Your task to perform on an android device: change notifications settings Image 0: 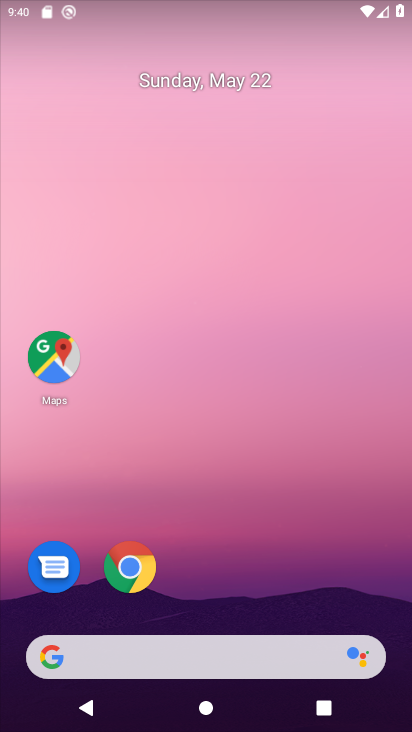
Step 0: drag from (214, 607) to (214, 78)
Your task to perform on an android device: change notifications settings Image 1: 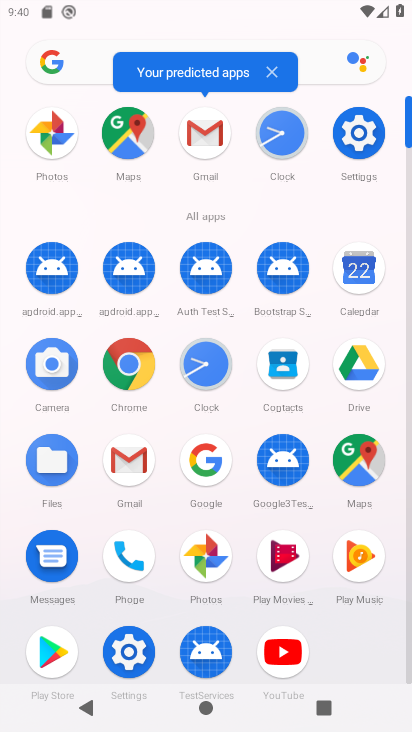
Step 1: click (358, 127)
Your task to perform on an android device: change notifications settings Image 2: 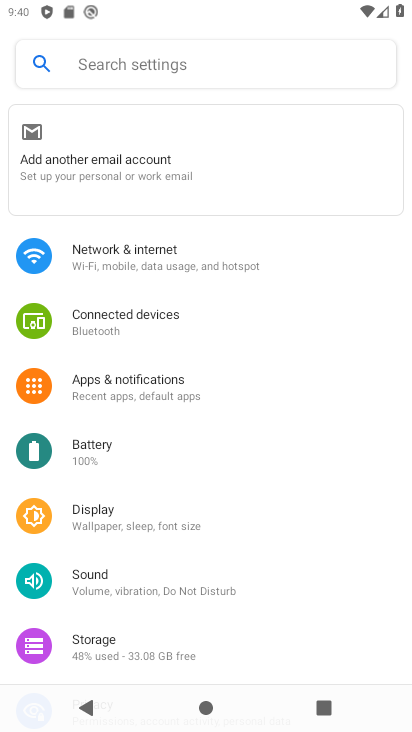
Step 2: click (205, 378)
Your task to perform on an android device: change notifications settings Image 3: 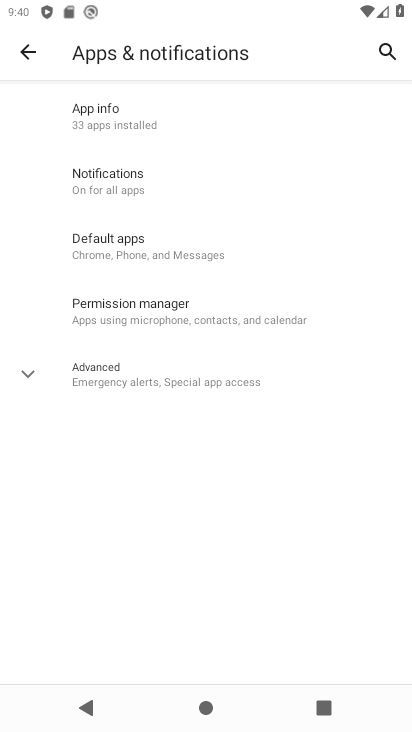
Step 3: click (153, 164)
Your task to perform on an android device: change notifications settings Image 4: 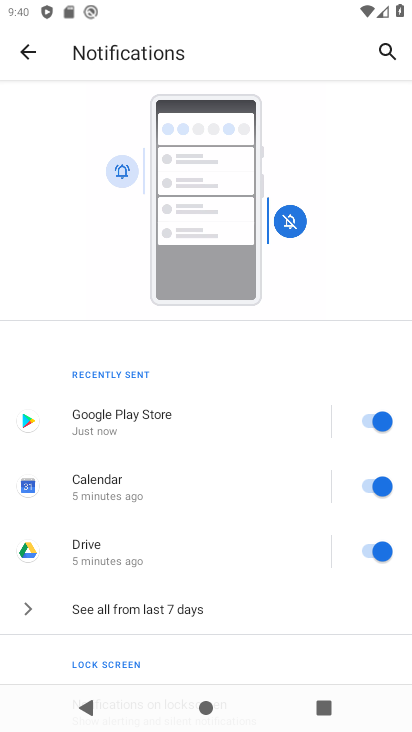
Step 4: drag from (236, 643) to (227, 208)
Your task to perform on an android device: change notifications settings Image 5: 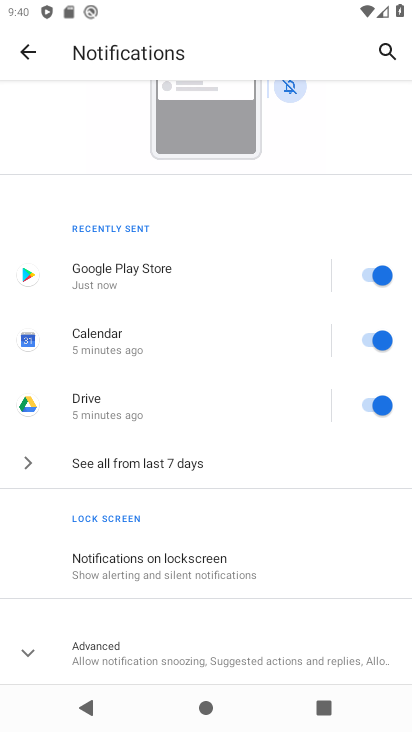
Step 5: click (370, 268)
Your task to perform on an android device: change notifications settings Image 6: 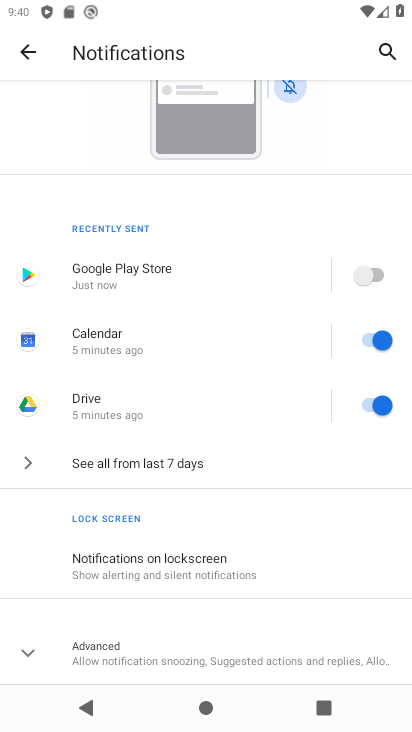
Step 6: click (372, 337)
Your task to perform on an android device: change notifications settings Image 7: 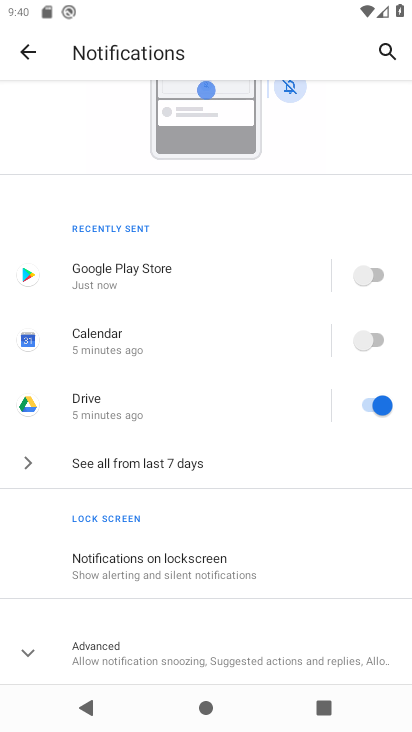
Step 7: click (375, 404)
Your task to perform on an android device: change notifications settings Image 8: 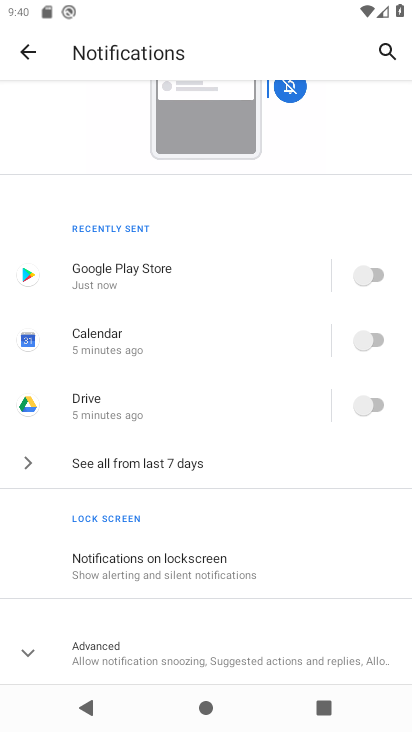
Step 8: click (173, 566)
Your task to perform on an android device: change notifications settings Image 9: 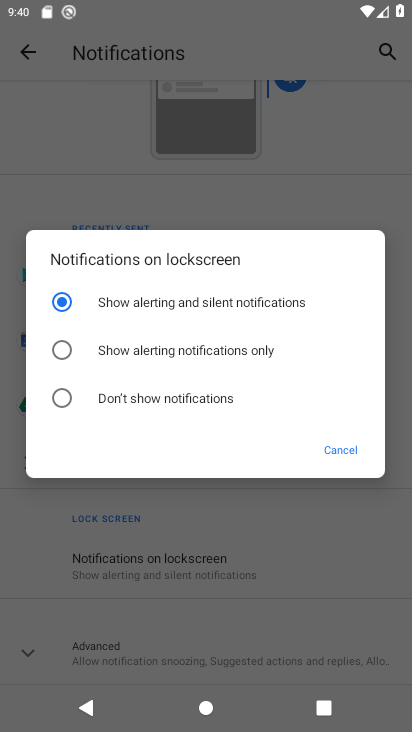
Step 9: click (60, 345)
Your task to perform on an android device: change notifications settings Image 10: 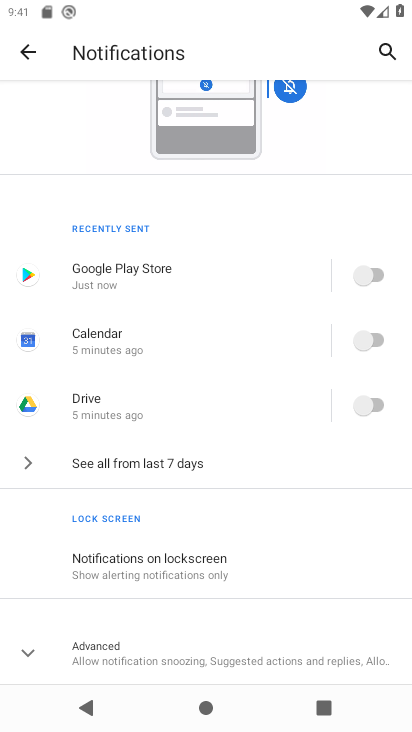
Step 10: task complete